Your task to perform on an android device: Open eBay Image 0: 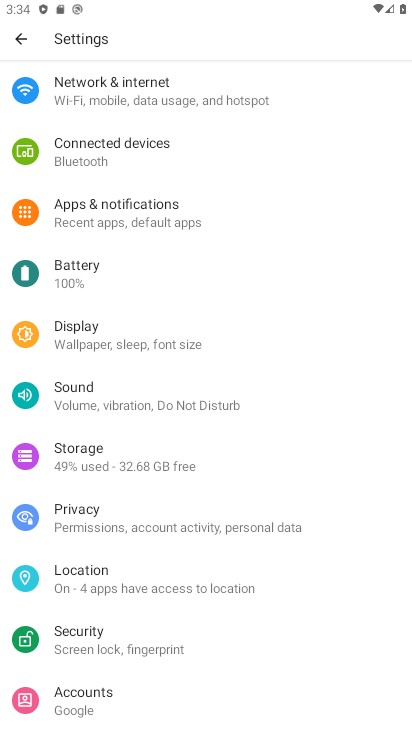
Step 0: press home button
Your task to perform on an android device: Open eBay Image 1: 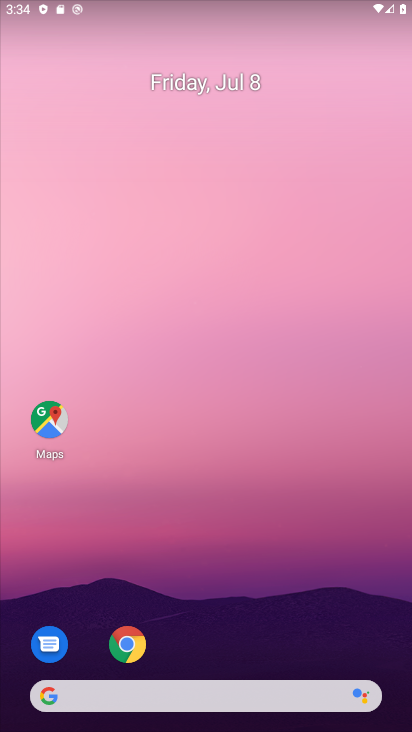
Step 1: click (119, 643)
Your task to perform on an android device: Open eBay Image 2: 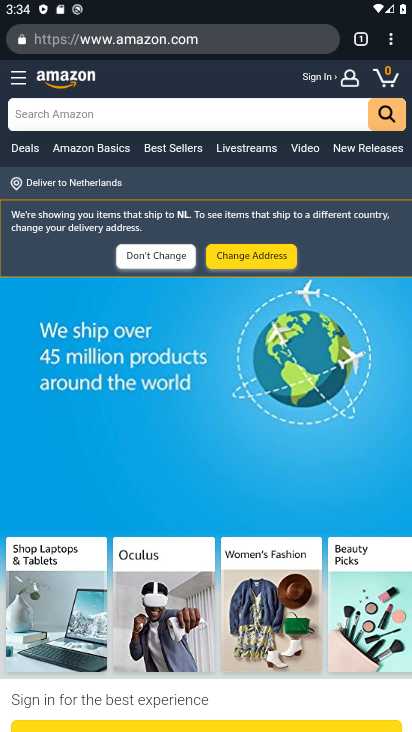
Step 2: click (363, 35)
Your task to perform on an android device: Open eBay Image 3: 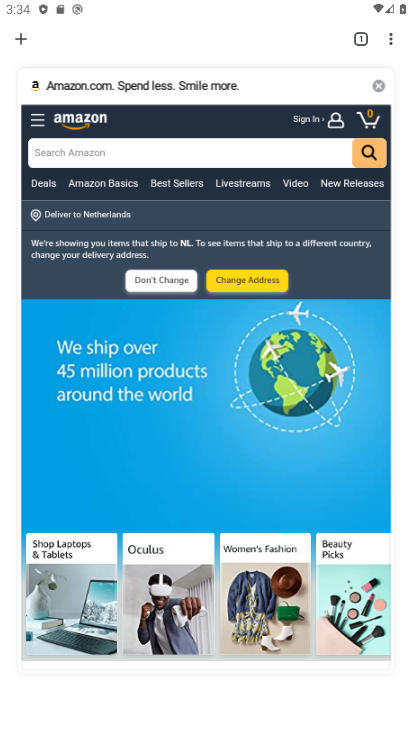
Step 3: click (368, 87)
Your task to perform on an android device: Open eBay Image 4: 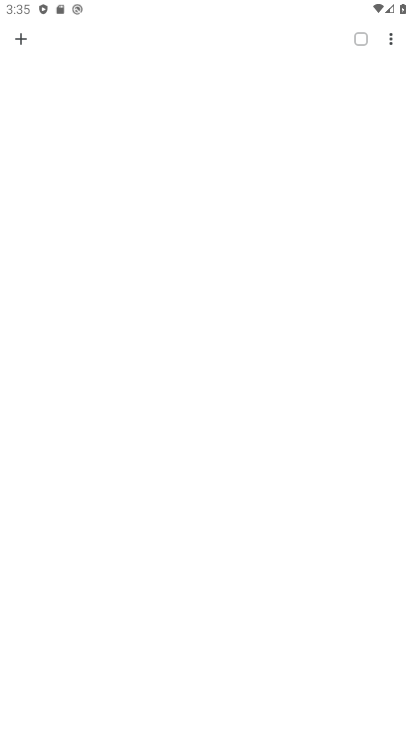
Step 4: click (13, 35)
Your task to perform on an android device: Open eBay Image 5: 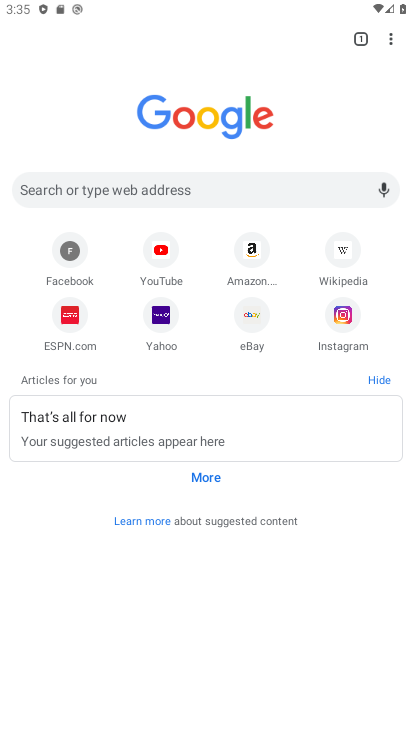
Step 5: click (287, 167)
Your task to perform on an android device: Open eBay Image 6: 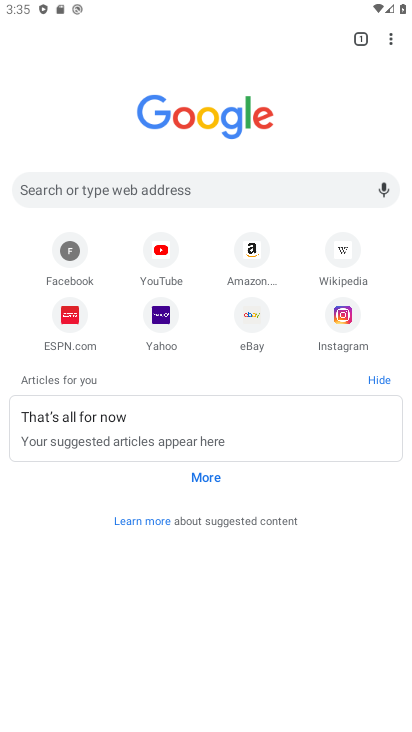
Step 6: click (293, 184)
Your task to perform on an android device: Open eBay Image 7: 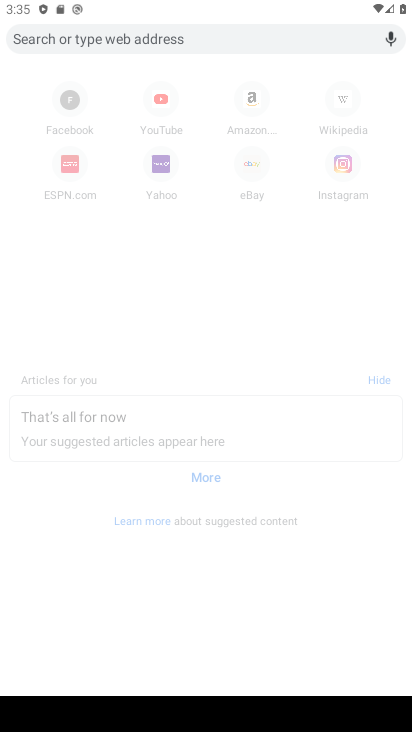
Step 7: type "ebay"
Your task to perform on an android device: Open eBay Image 8: 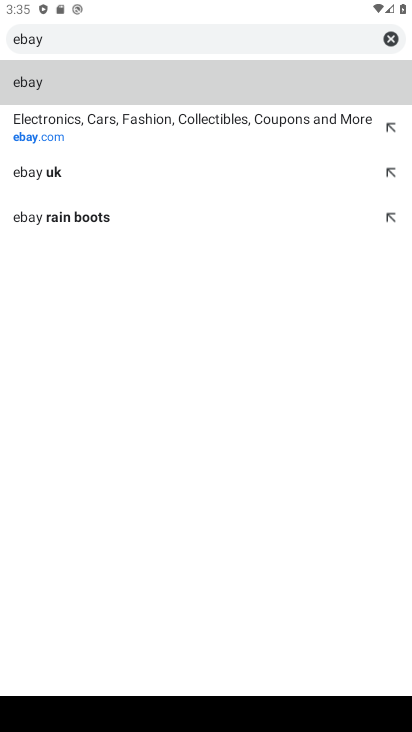
Step 8: click (193, 115)
Your task to perform on an android device: Open eBay Image 9: 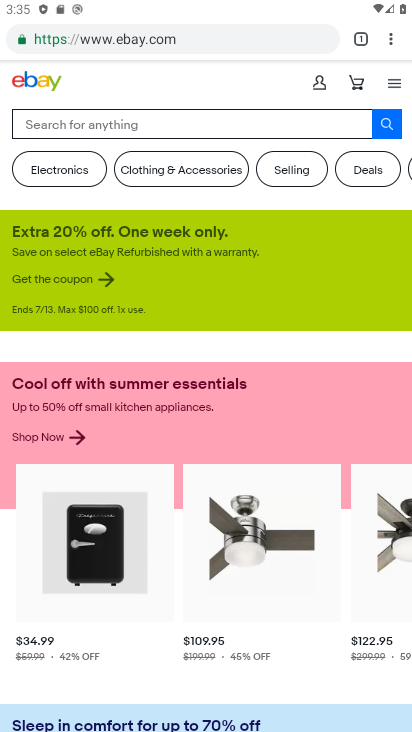
Step 9: task complete